Your task to perform on an android device: Open notification settings Image 0: 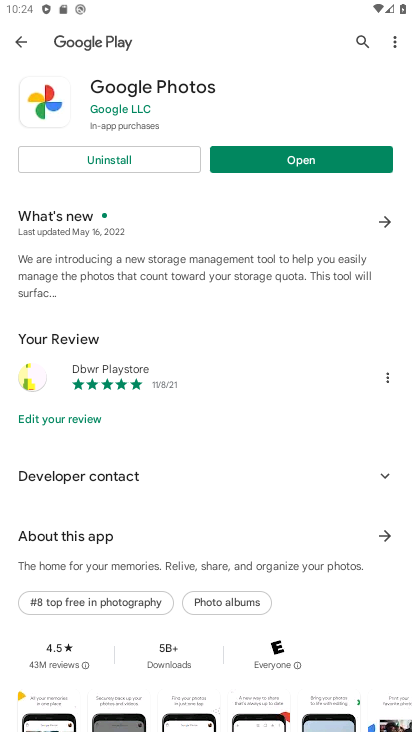
Step 0: press home button
Your task to perform on an android device: Open notification settings Image 1: 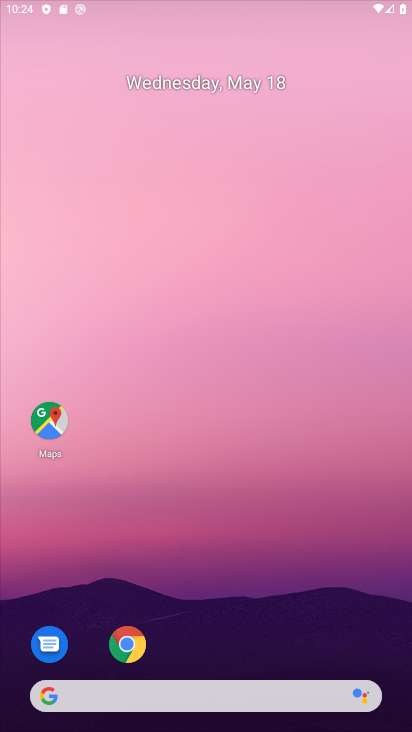
Step 1: drag from (372, 606) to (255, 48)
Your task to perform on an android device: Open notification settings Image 2: 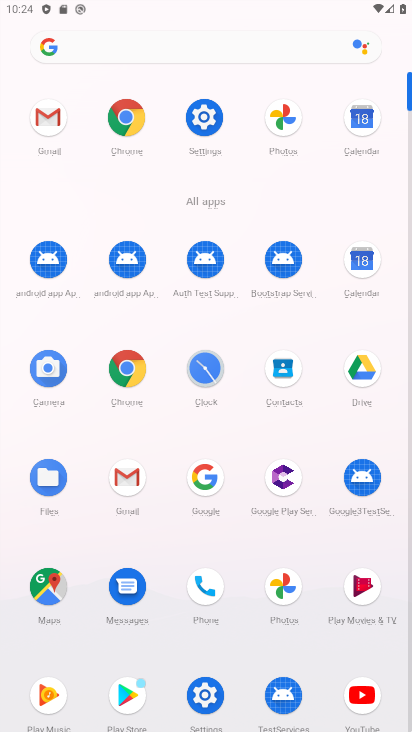
Step 2: click (201, 118)
Your task to perform on an android device: Open notification settings Image 3: 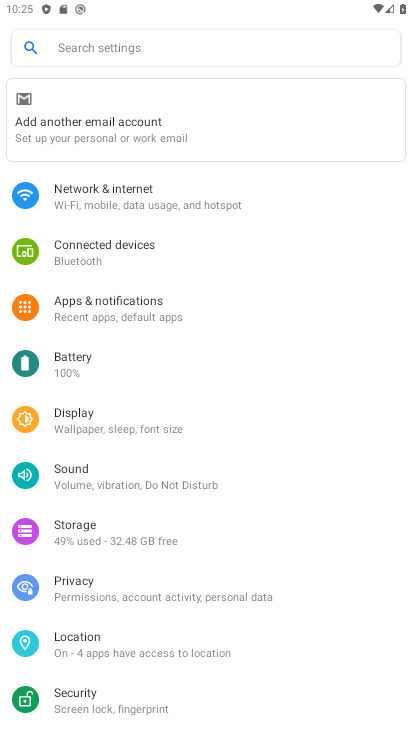
Step 3: click (150, 311)
Your task to perform on an android device: Open notification settings Image 4: 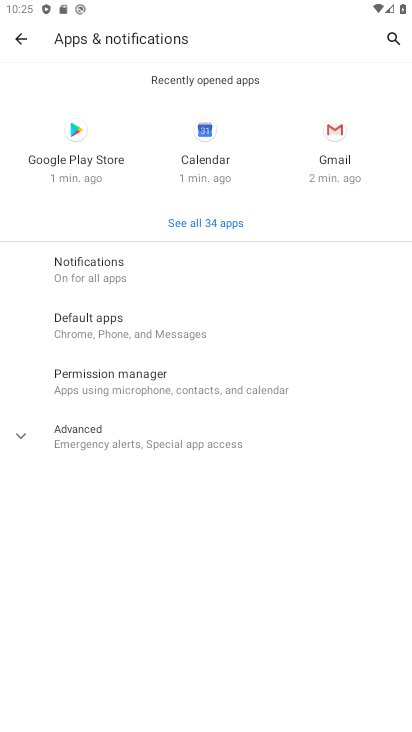
Step 4: click (107, 286)
Your task to perform on an android device: Open notification settings Image 5: 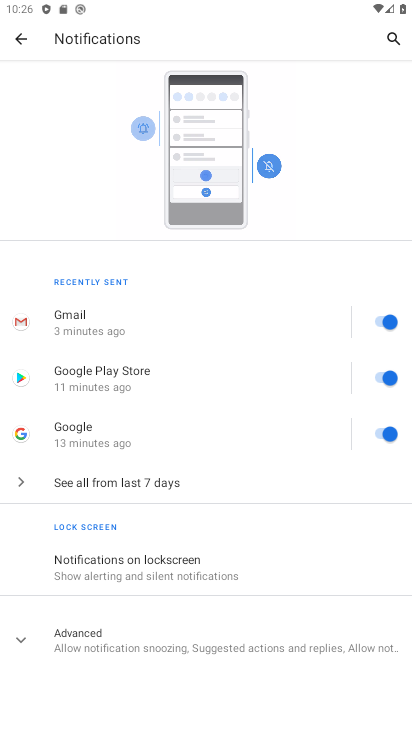
Step 5: task complete